Your task to perform on an android device: Open wifi settings Image 0: 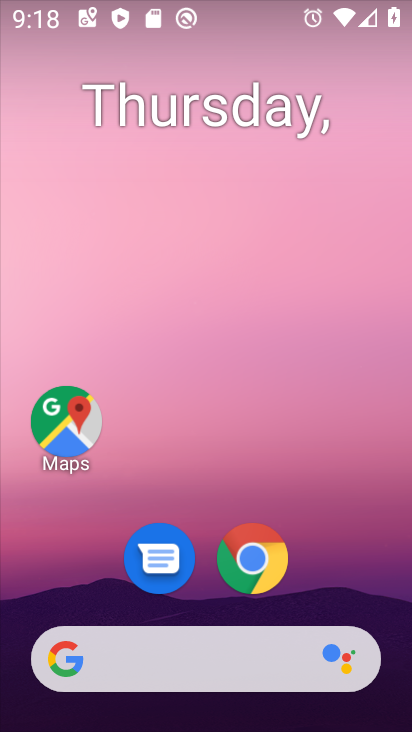
Step 0: drag from (392, 640) to (304, 1)
Your task to perform on an android device: Open wifi settings Image 1: 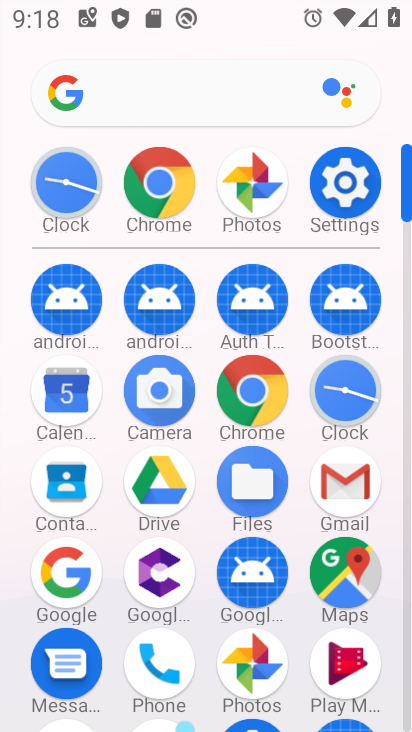
Step 1: click (407, 681)
Your task to perform on an android device: Open wifi settings Image 2: 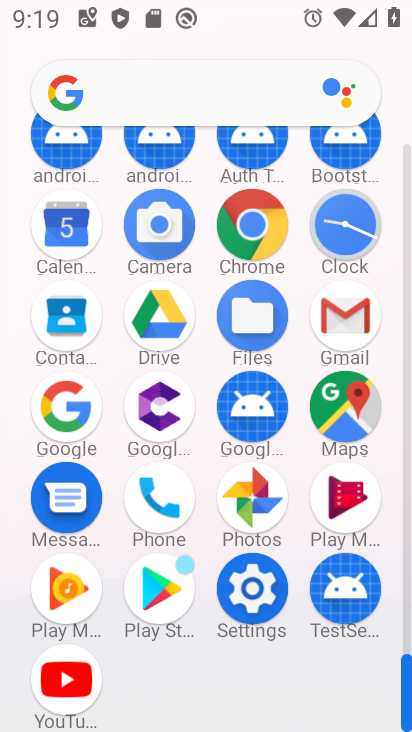
Step 2: click (256, 582)
Your task to perform on an android device: Open wifi settings Image 3: 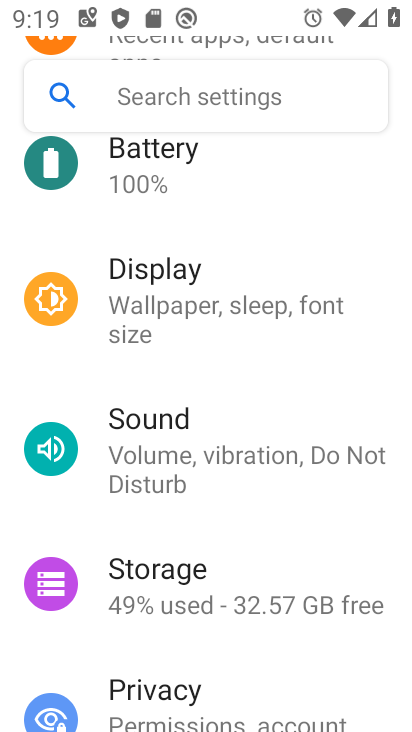
Step 3: drag from (269, 223) to (306, 580)
Your task to perform on an android device: Open wifi settings Image 4: 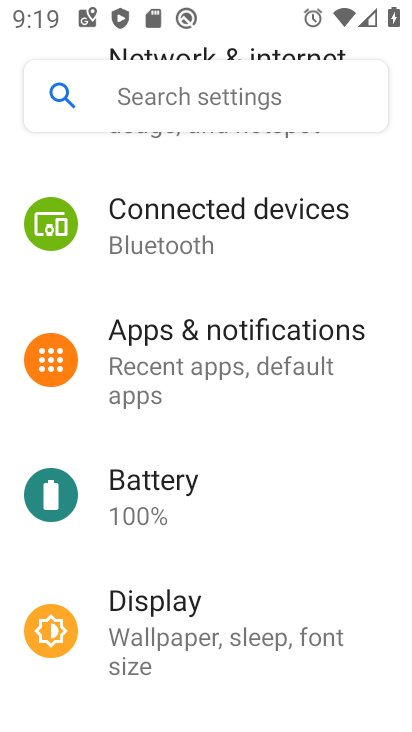
Step 4: drag from (355, 282) to (303, 592)
Your task to perform on an android device: Open wifi settings Image 5: 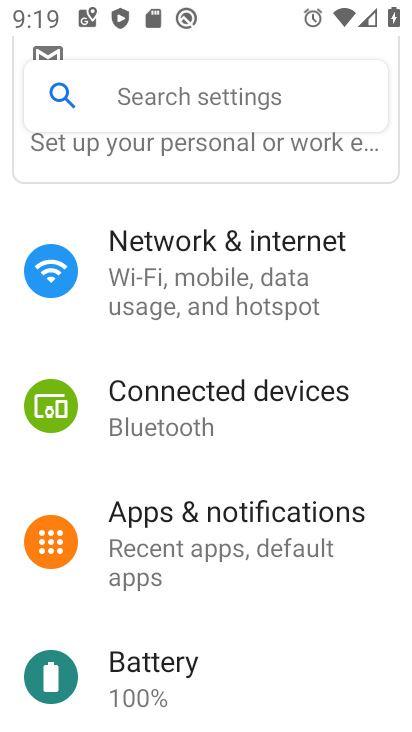
Step 5: click (195, 267)
Your task to perform on an android device: Open wifi settings Image 6: 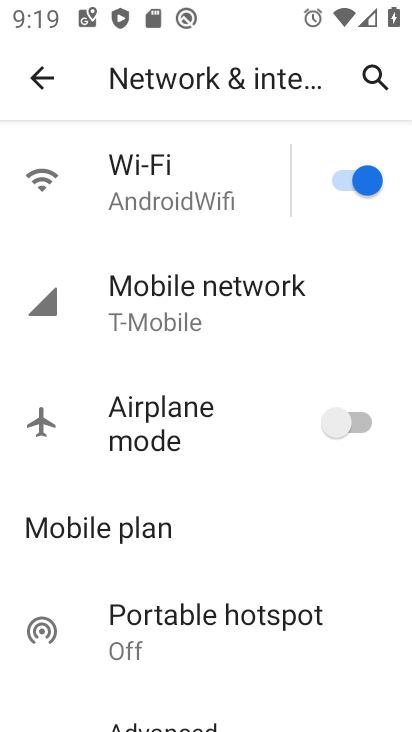
Step 6: click (128, 182)
Your task to perform on an android device: Open wifi settings Image 7: 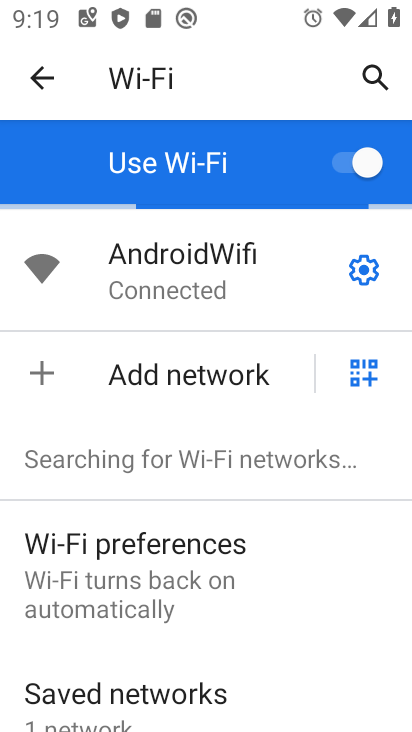
Step 7: drag from (248, 599) to (223, 680)
Your task to perform on an android device: Open wifi settings Image 8: 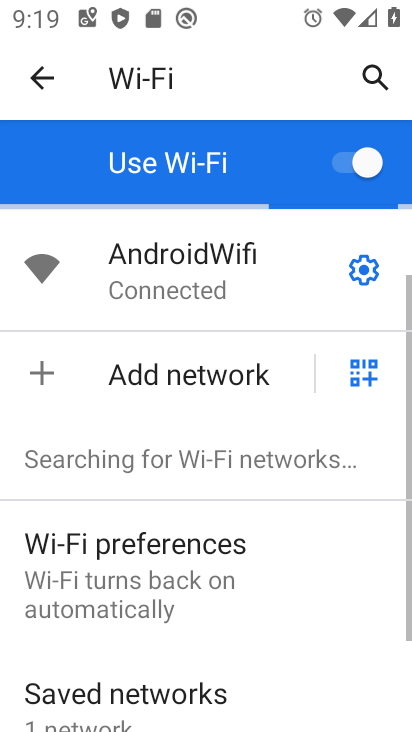
Step 8: click (362, 271)
Your task to perform on an android device: Open wifi settings Image 9: 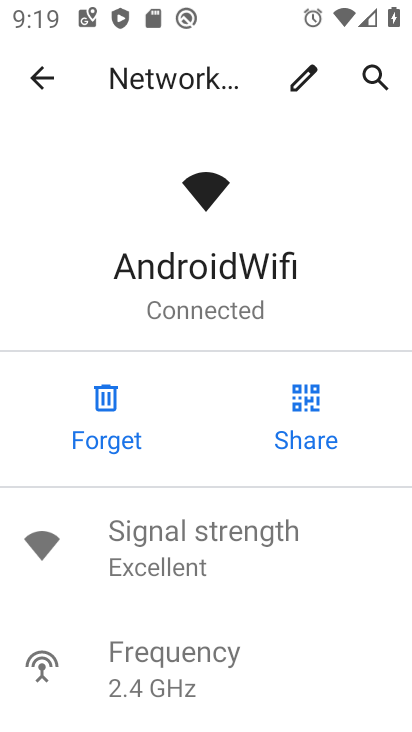
Step 9: drag from (205, 654) to (201, 205)
Your task to perform on an android device: Open wifi settings Image 10: 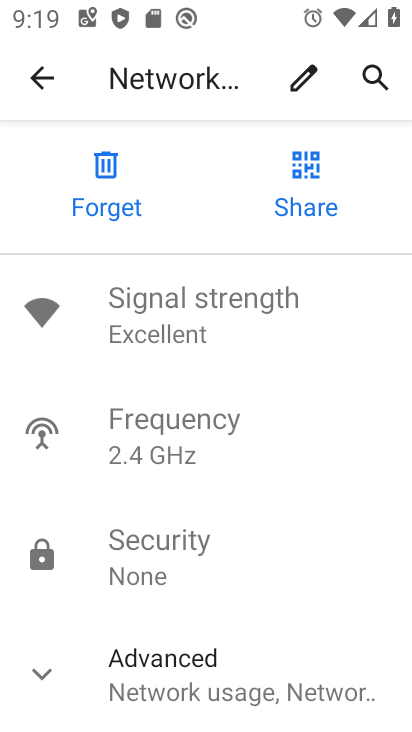
Step 10: click (16, 672)
Your task to perform on an android device: Open wifi settings Image 11: 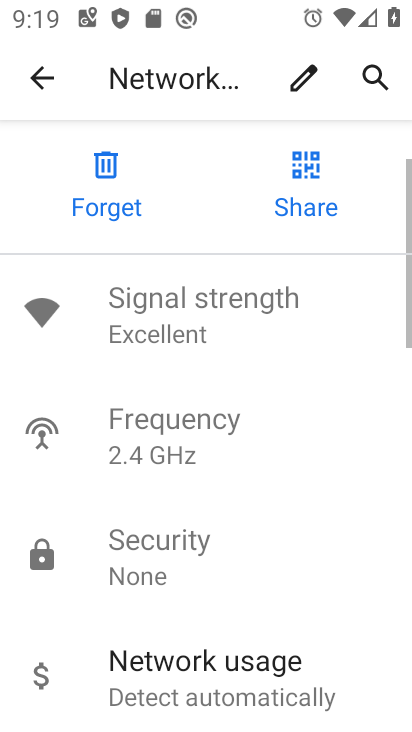
Step 11: task complete